Your task to perform on an android device: Show me popular videos on Youtube Image 0: 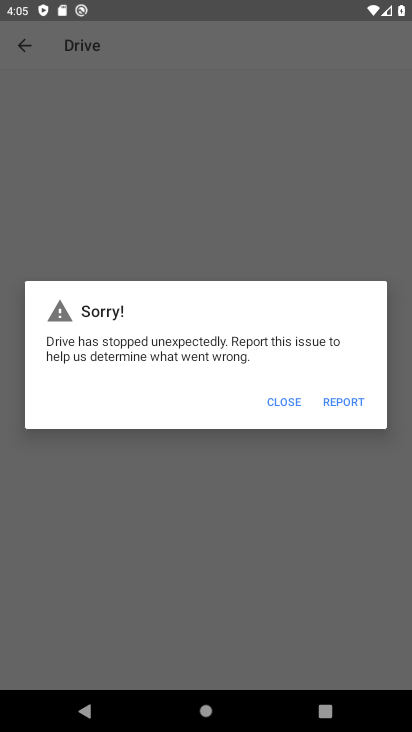
Step 0: press home button
Your task to perform on an android device: Show me popular videos on Youtube Image 1: 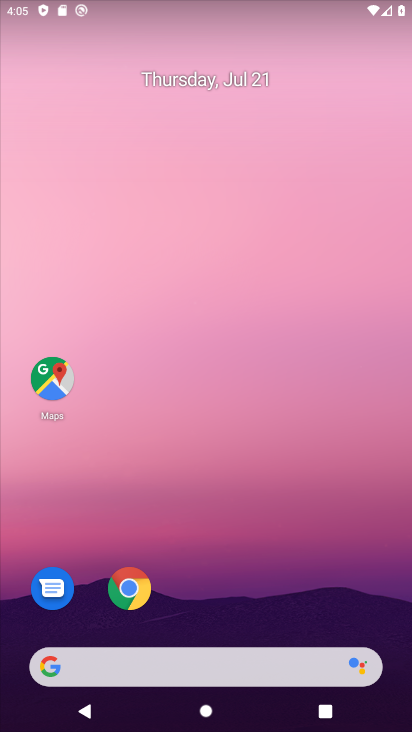
Step 1: drag from (216, 614) to (339, 0)
Your task to perform on an android device: Show me popular videos on Youtube Image 2: 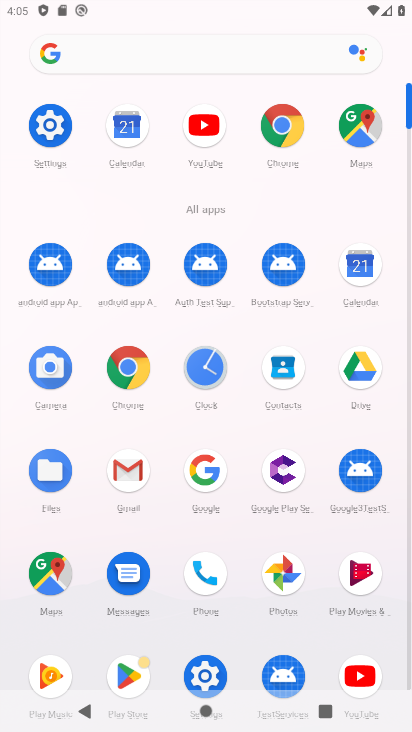
Step 2: click (337, 667)
Your task to perform on an android device: Show me popular videos on Youtube Image 3: 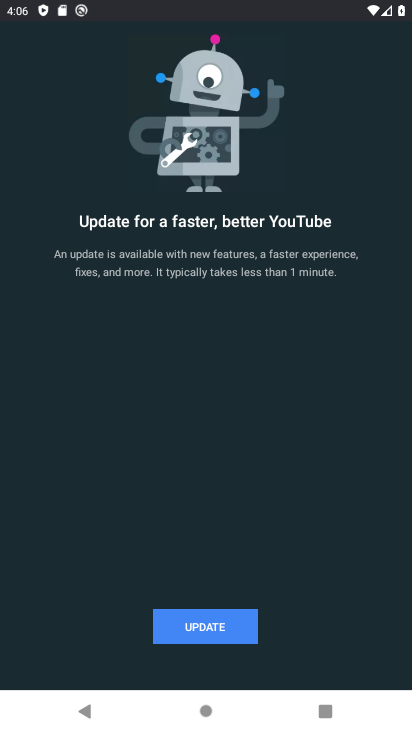
Step 3: click (182, 621)
Your task to perform on an android device: Show me popular videos on Youtube Image 4: 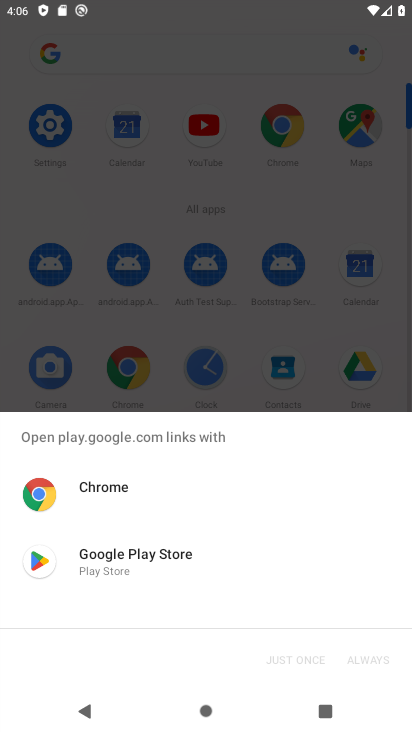
Step 4: click (164, 562)
Your task to perform on an android device: Show me popular videos on Youtube Image 5: 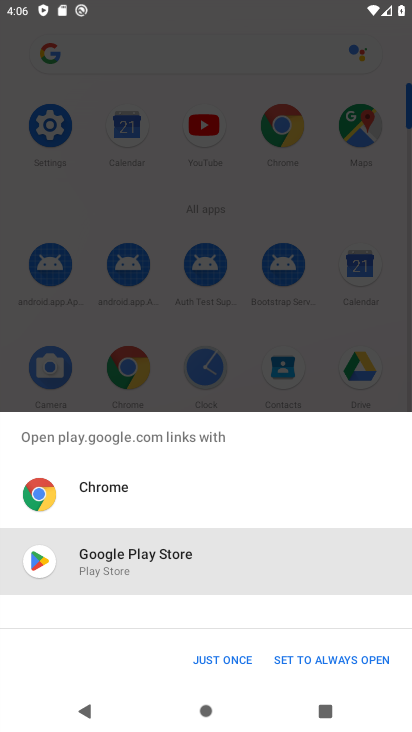
Step 5: click (210, 659)
Your task to perform on an android device: Show me popular videos on Youtube Image 6: 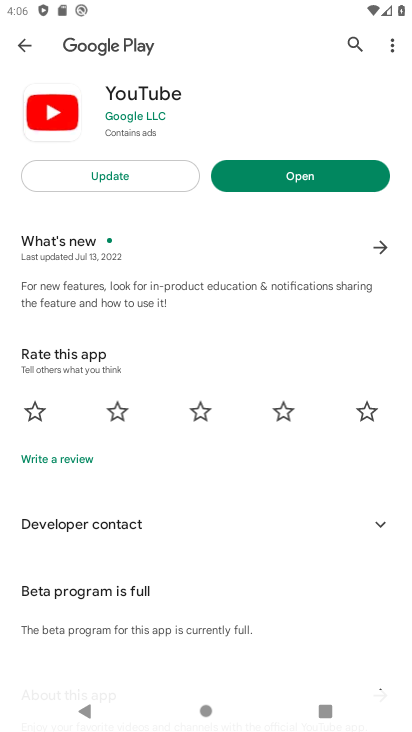
Step 6: click (157, 172)
Your task to perform on an android device: Show me popular videos on Youtube Image 7: 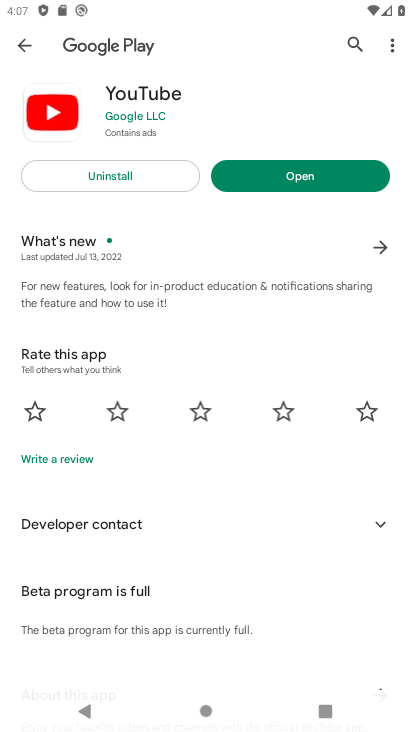
Step 7: click (255, 174)
Your task to perform on an android device: Show me popular videos on Youtube Image 8: 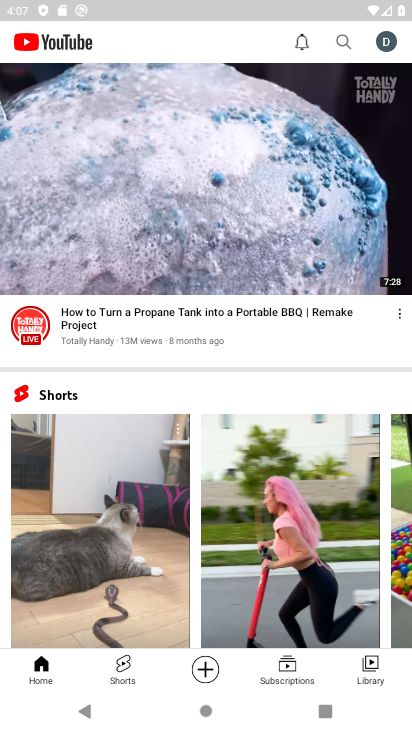
Step 8: click (335, 36)
Your task to perform on an android device: Show me popular videos on Youtube Image 9: 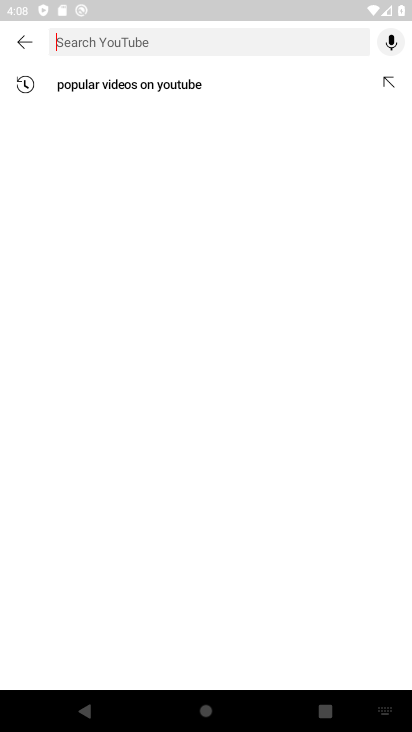
Step 9: type "popular videos on Youtube"
Your task to perform on an android device: Show me popular videos on Youtube Image 10: 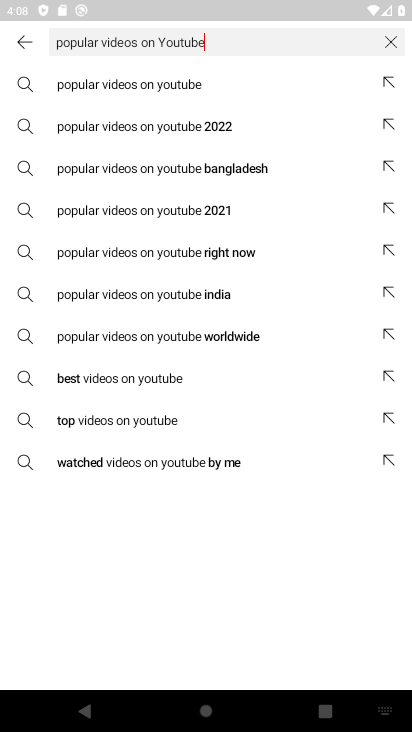
Step 10: type ""
Your task to perform on an android device: Show me popular videos on Youtube Image 11: 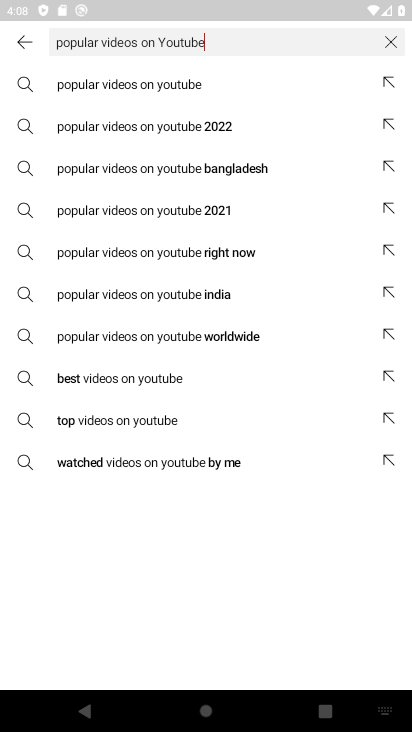
Step 11: click (125, 93)
Your task to perform on an android device: Show me popular videos on Youtube Image 12: 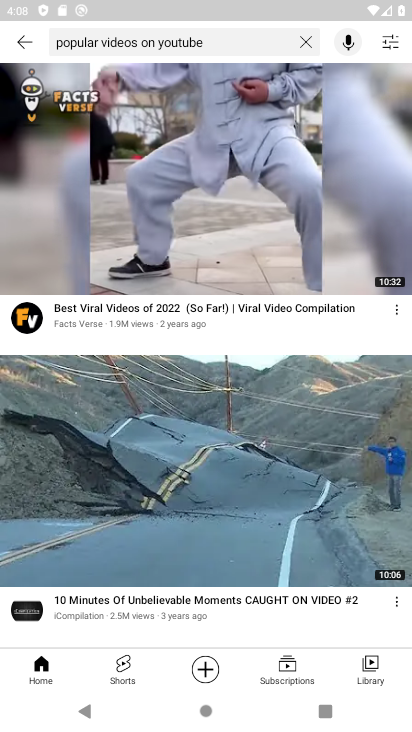
Step 12: task complete